Your task to perform on an android device: change alarm snooze length Image 0: 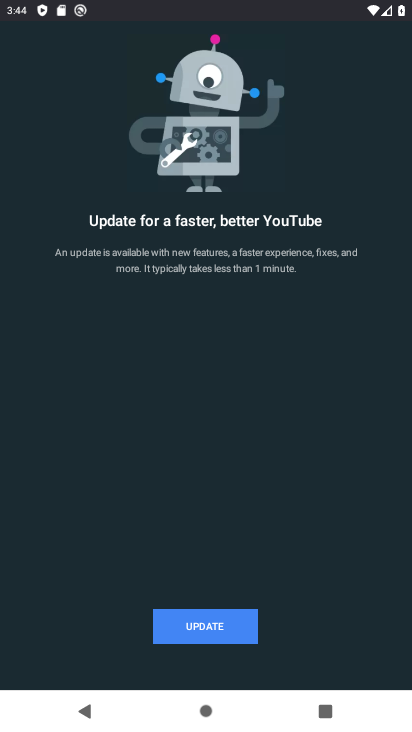
Step 0: press home button
Your task to perform on an android device: change alarm snooze length Image 1: 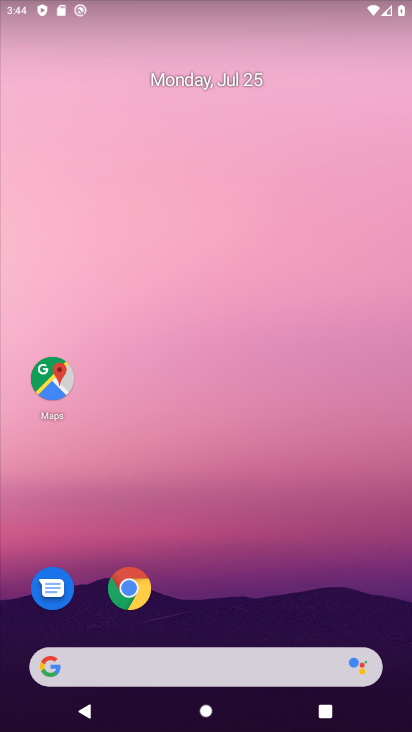
Step 1: drag from (270, 508) to (298, 279)
Your task to perform on an android device: change alarm snooze length Image 2: 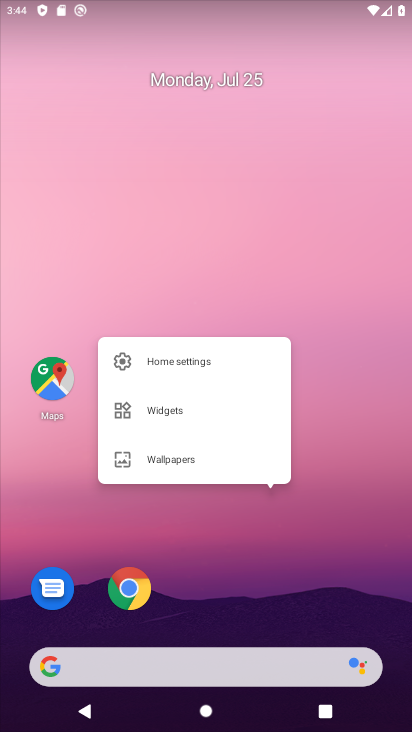
Step 2: drag from (195, 613) to (280, 175)
Your task to perform on an android device: change alarm snooze length Image 3: 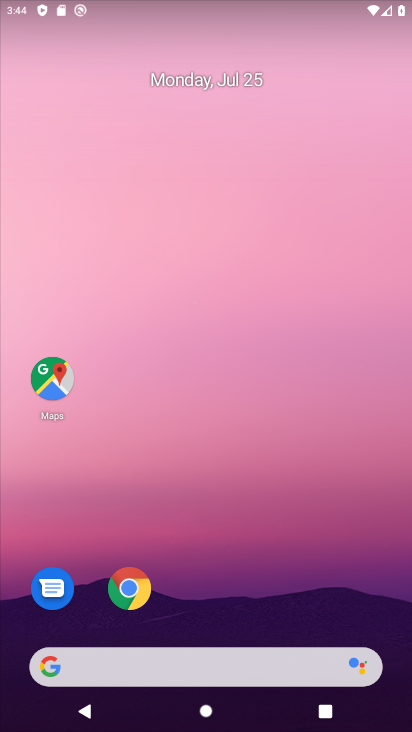
Step 3: drag from (242, 602) to (264, 136)
Your task to perform on an android device: change alarm snooze length Image 4: 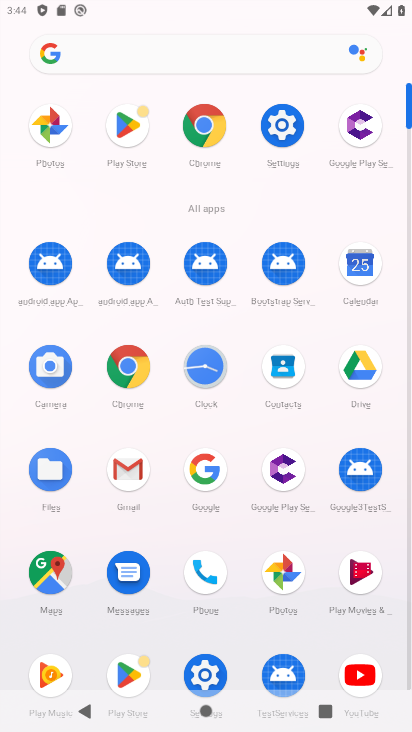
Step 4: click (211, 391)
Your task to perform on an android device: change alarm snooze length Image 5: 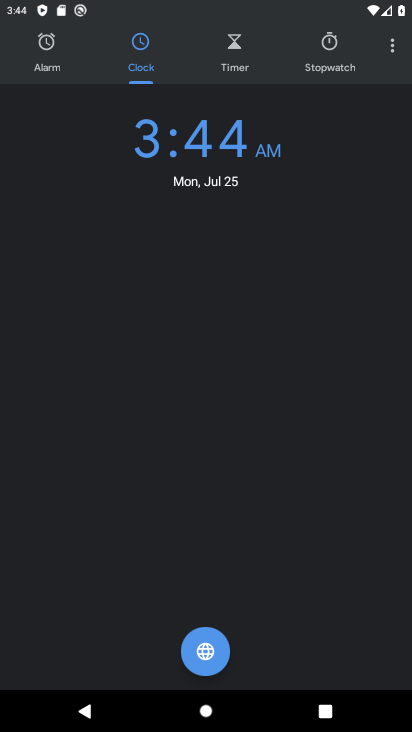
Step 5: click (402, 61)
Your task to perform on an android device: change alarm snooze length Image 6: 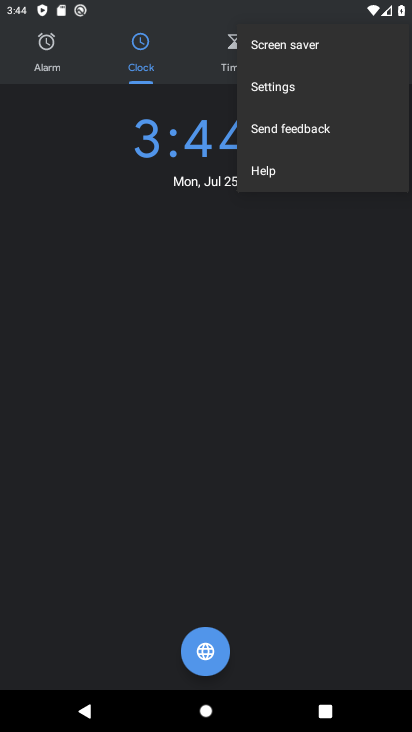
Step 6: click (318, 114)
Your task to perform on an android device: change alarm snooze length Image 7: 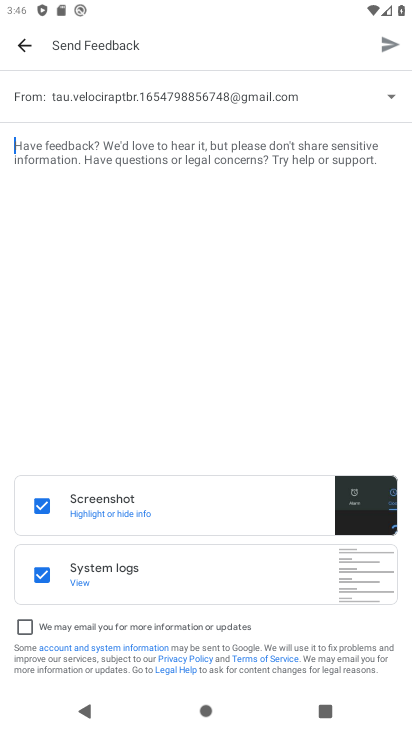
Step 7: press home button
Your task to perform on an android device: change alarm snooze length Image 8: 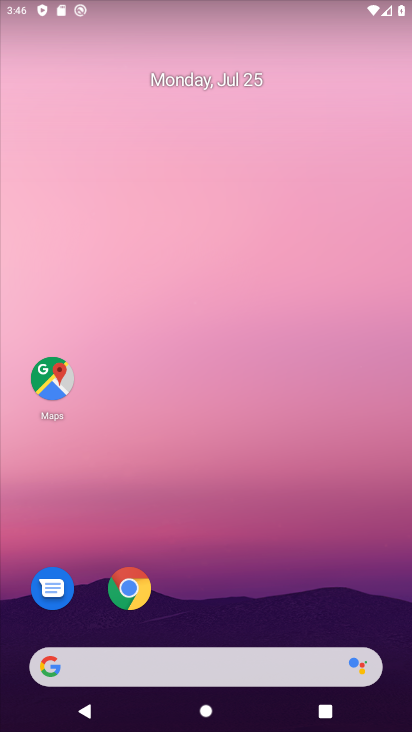
Step 8: drag from (308, 266) to (365, 62)
Your task to perform on an android device: change alarm snooze length Image 9: 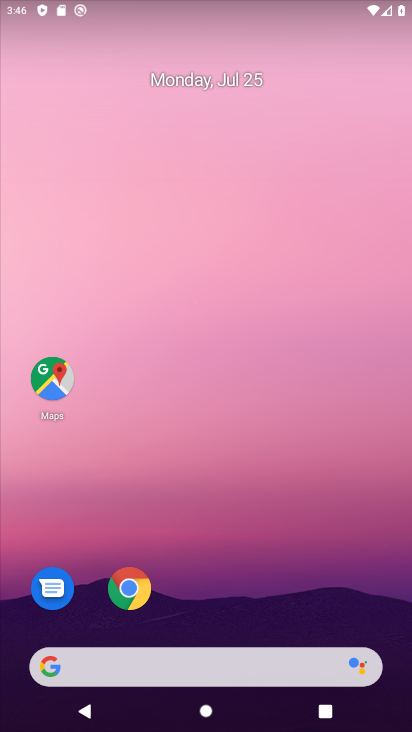
Step 9: drag from (265, 635) to (261, 51)
Your task to perform on an android device: change alarm snooze length Image 10: 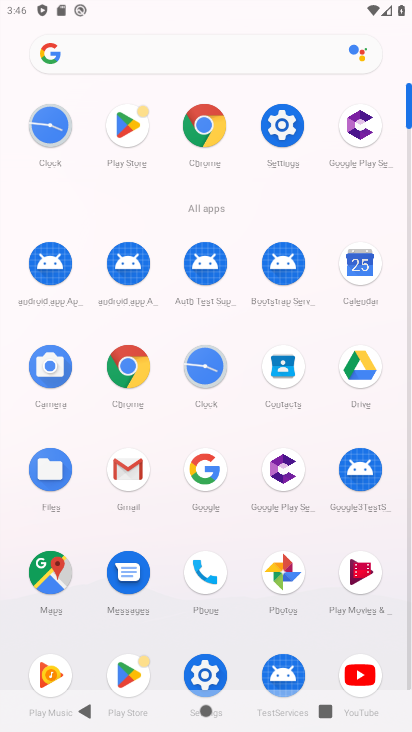
Step 10: click (189, 360)
Your task to perform on an android device: change alarm snooze length Image 11: 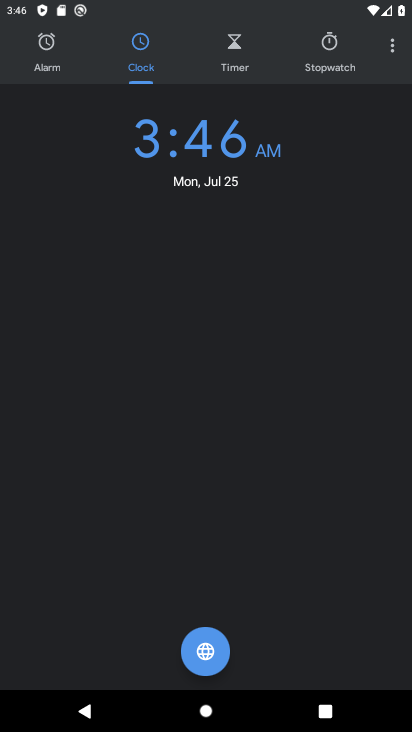
Step 11: click (32, 45)
Your task to perform on an android device: change alarm snooze length Image 12: 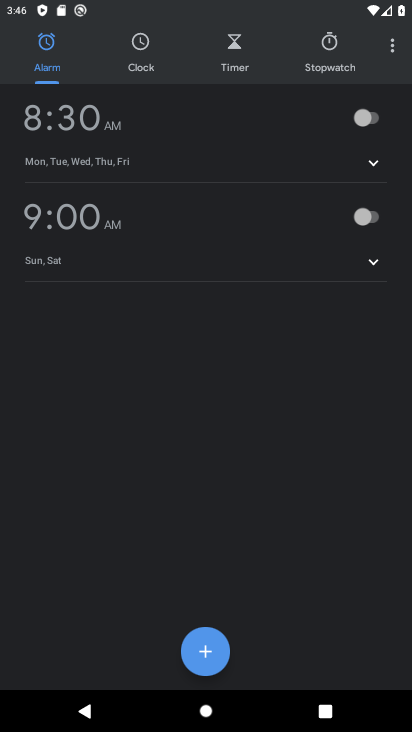
Step 12: click (390, 42)
Your task to perform on an android device: change alarm snooze length Image 13: 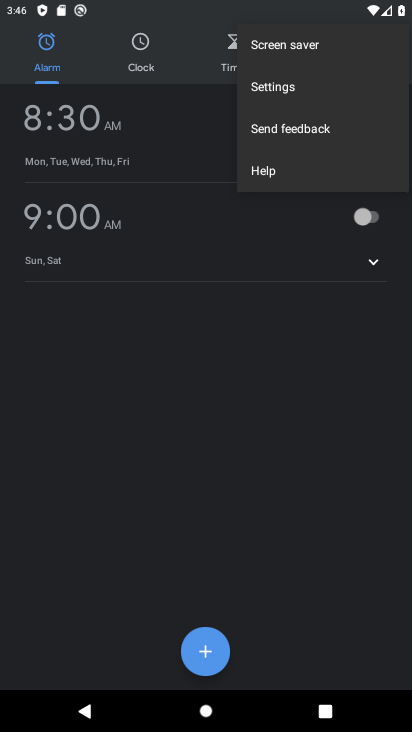
Step 13: click (263, 84)
Your task to perform on an android device: change alarm snooze length Image 14: 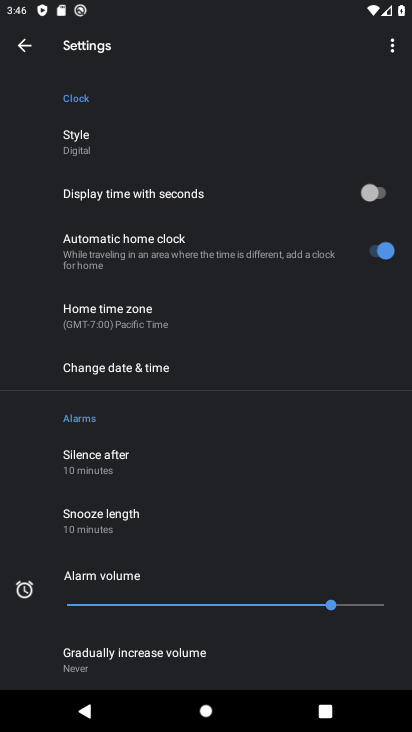
Step 14: click (195, 510)
Your task to perform on an android device: change alarm snooze length Image 15: 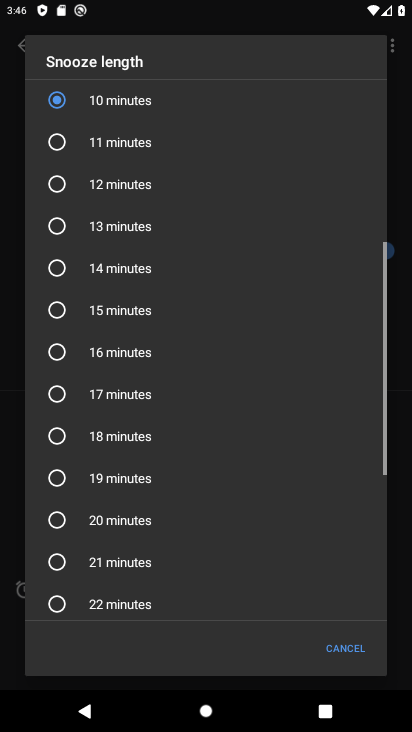
Step 15: click (195, 510)
Your task to perform on an android device: change alarm snooze length Image 16: 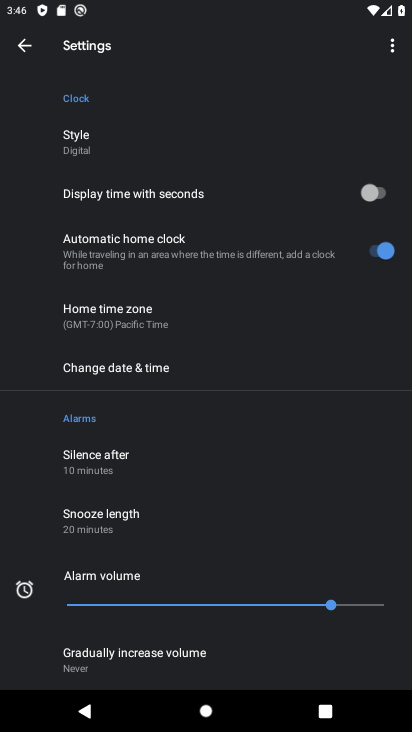
Step 16: task complete